Your task to perform on an android device: empty trash in google photos Image 0: 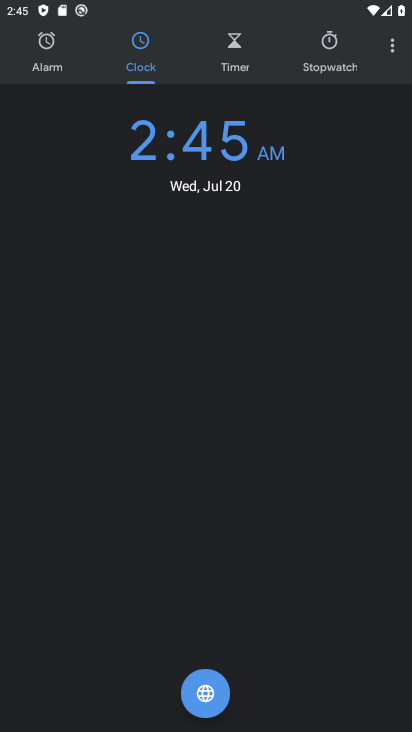
Step 0: press back button
Your task to perform on an android device: empty trash in google photos Image 1: 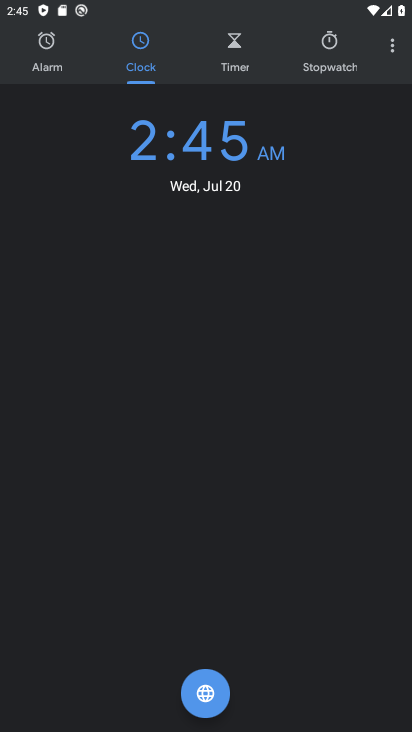
Step 1: press back button
Your task to perform on an android device: empty trash in google photos Image 2: 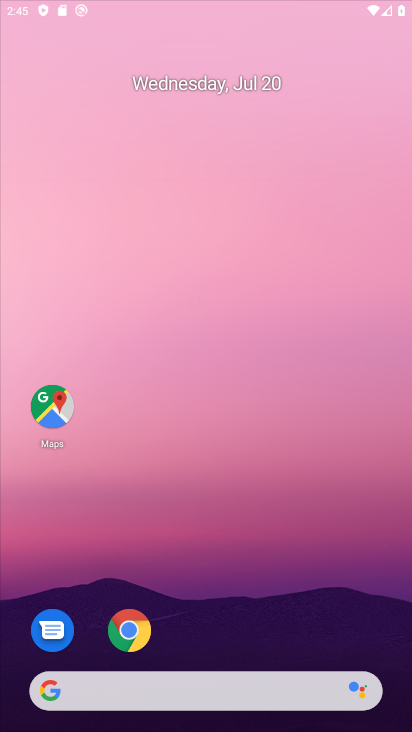
Step 2: press back button
Your task to perform on an android device: empty trash in google photos Image 3: 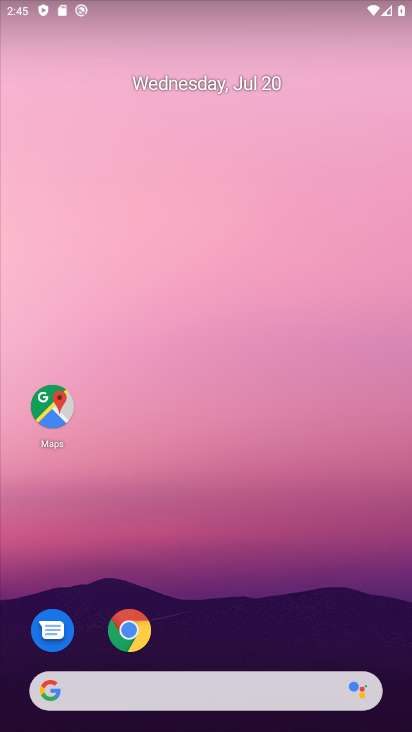
Step 3: drag from (266, 511) to (258, 2)
Your task to perform on an android device: empty trash in google photos Image 4: 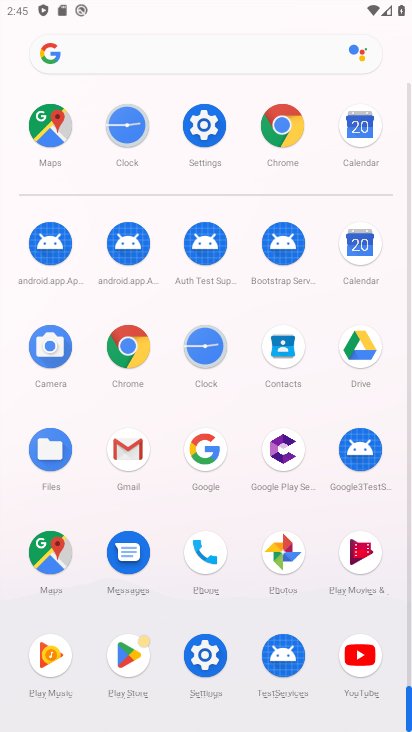
Step 4: click (282, 558)
Your task to perform on an android device: empty trash in google photos Image 5: 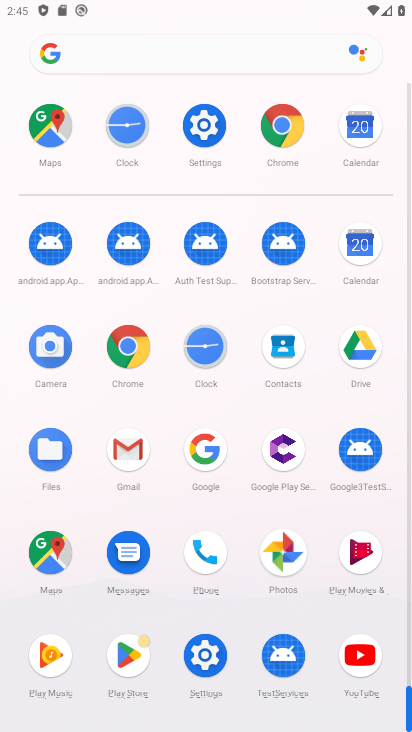
Step 5: click (282, 557)
Your task to perform on an android device: empty trash in google photos Image 6: 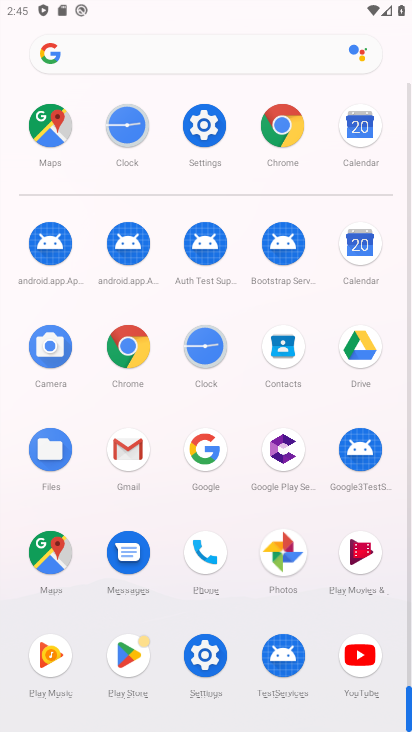
Step 6: click (282, 554)
Your task to perform on an android device: empty trash in google photos Image 7: 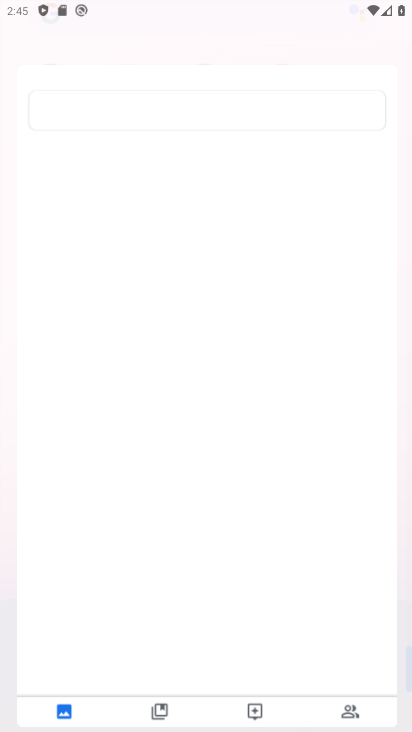
Step 7: click (282, 554)
Your task to perform on an android device: empty trash in google photos Image 8: 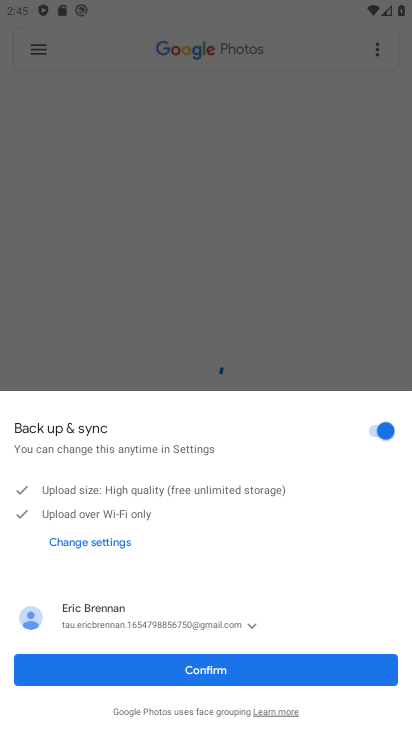
Step 8: click (219, 670)
Your task to perform on an android device: empty trash in google photos Image 9: 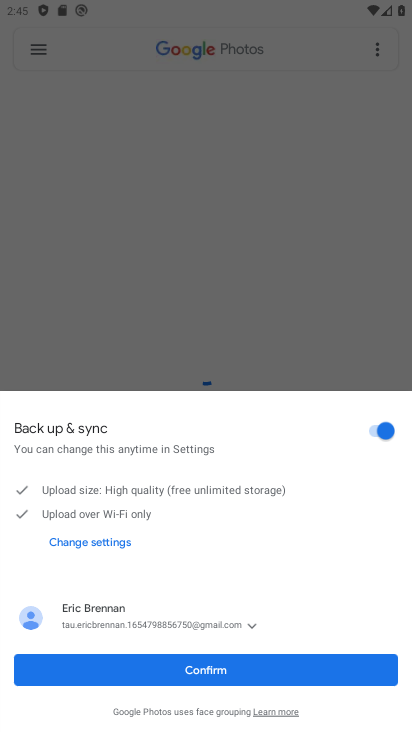
Step 9: click (219, 670)
Your task to perform on an android device: empty trash in google photos Image 10: 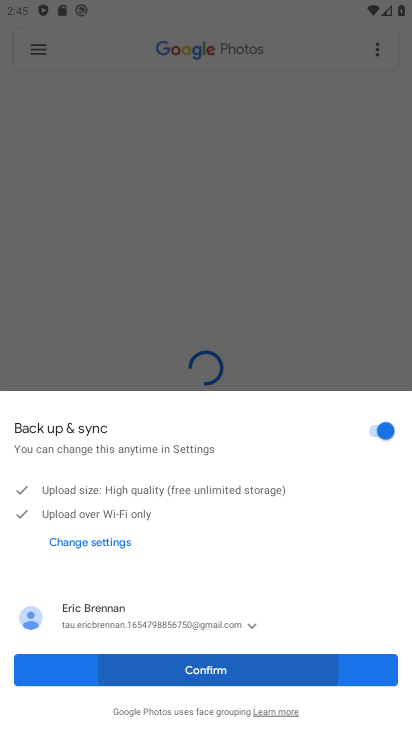
Step 10: click (219, 670)
Your task to perform on an android device: empty trash in google photos Image 11: 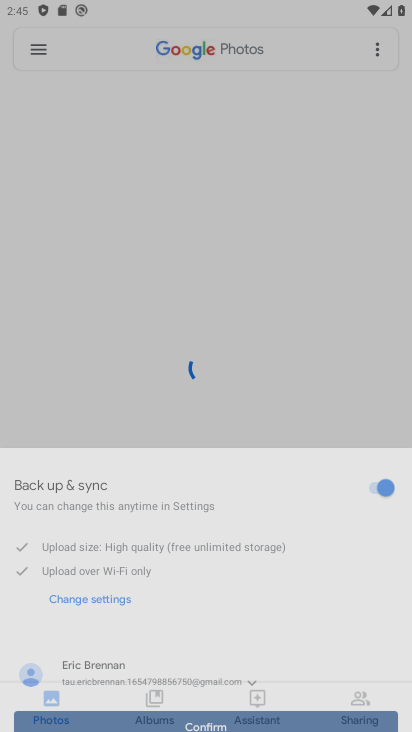
Step 11: click (219, 670)
Your task to perform on an android device: empty trash in google photos Image 12: 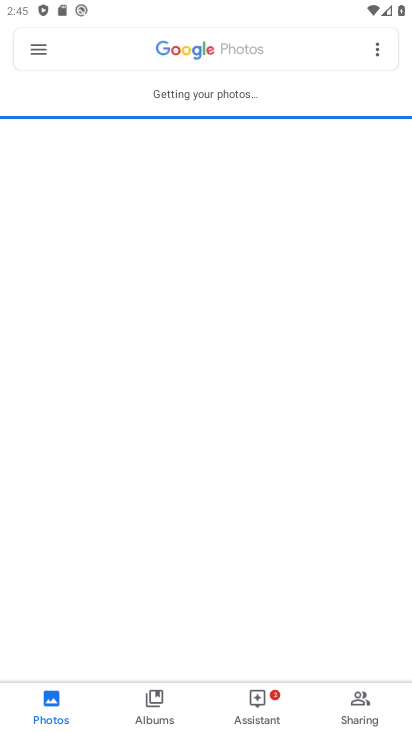
Step 12: click (240, 267)
Your task to perform on an android device: empty trash in google photos Image 13: 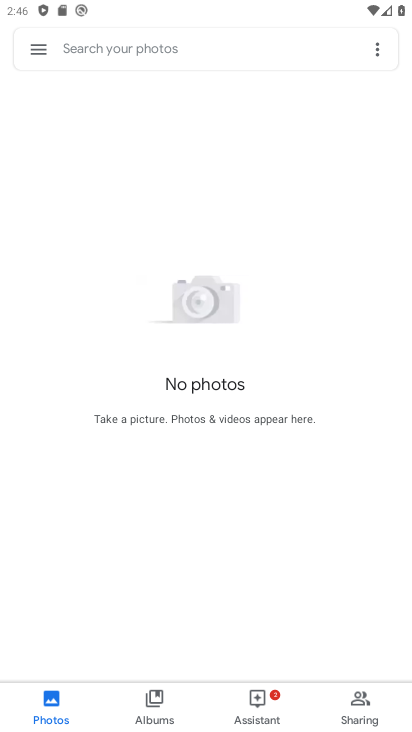
Step 13: task complete